Your task to perform on an android device: visit the assistant section in the google photos Image 0: 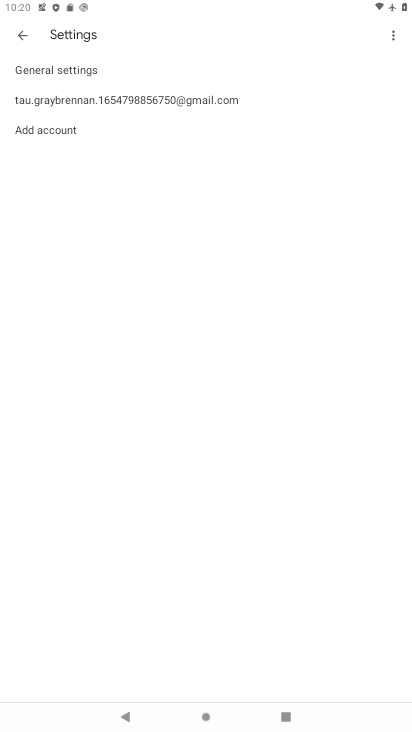
Step 0: press home button
Your task to perform on an android device: visit the assistant section in the google photos Image 1: 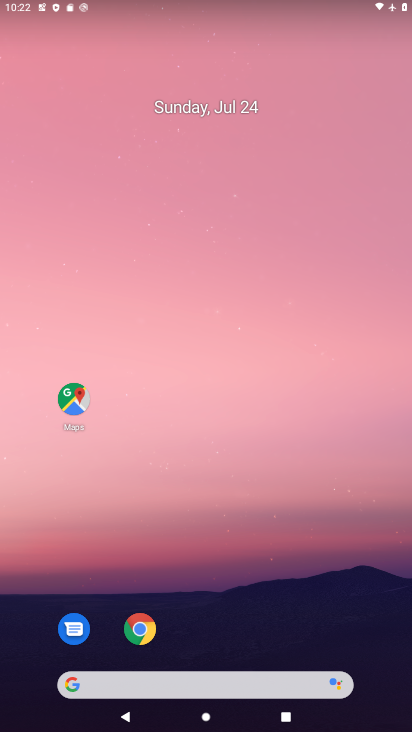
Step 1: task complete